Your task to perform on an android device: find snoozed emails in the gmail app Image 0: 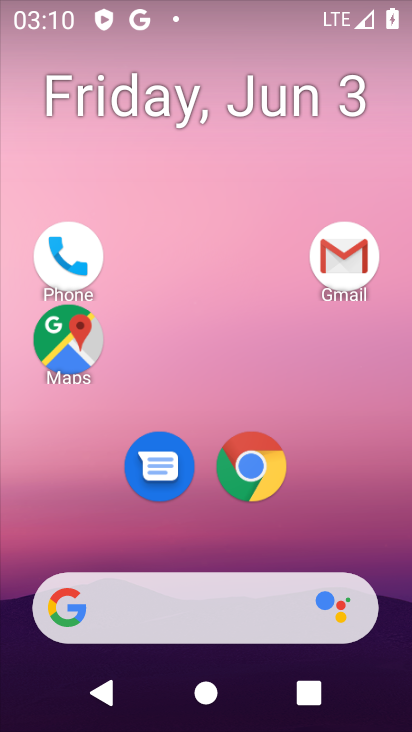
Step 0: press home button
Your task to perform on an android device: find snoozed emails in the gmail app Image 1: 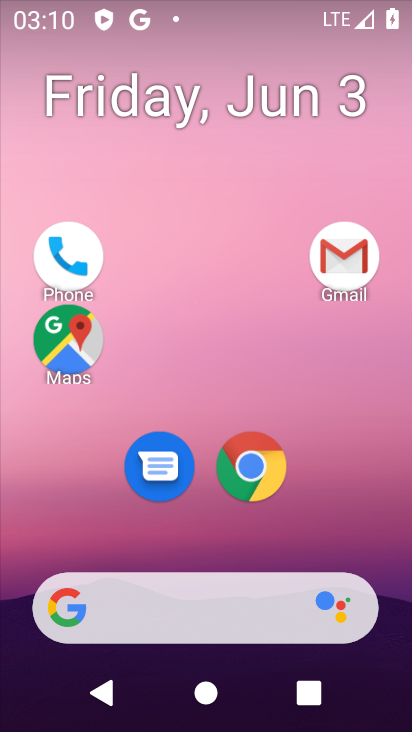
Step 1: drag from (217, 554) to (176, 114)
Your task to perform on an android device: find snoozed emails in the gmail app Image 2: 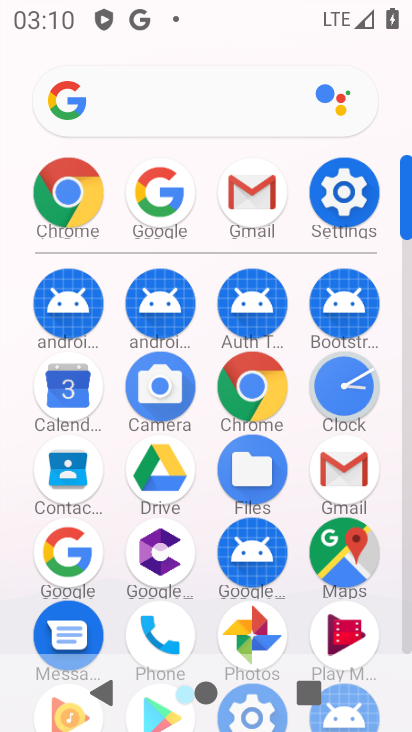
Step 2: click (248, 215)
Your task to perform on an android device: find snoozed emails in the gmail app Image 3: 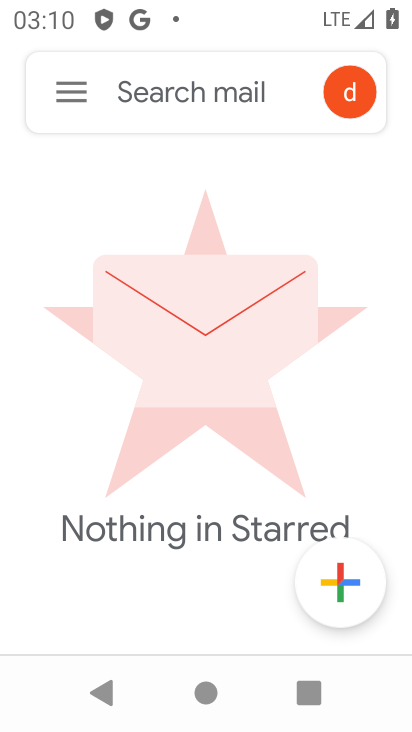
Step 3: click (76, 94)
Your task to perform on an android device: find snoozed emails in the gmail app Image 4: 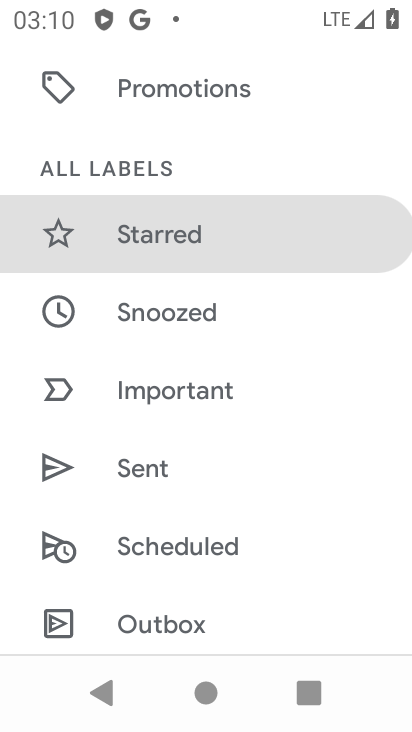
Step 4: click (214, 323)
Your task to perform on an android device: find snoozed emails in the gmail app Image 5: 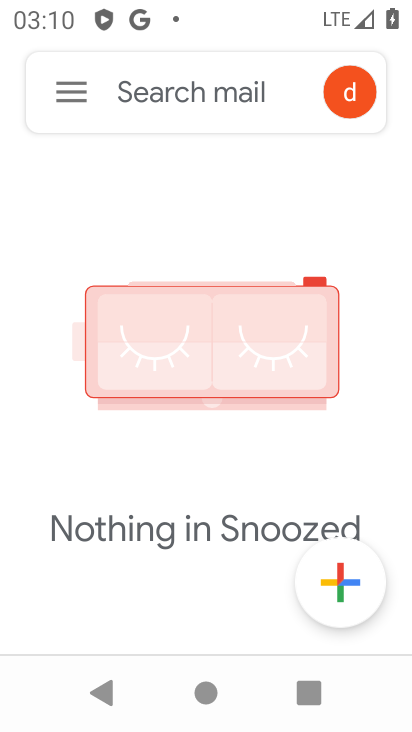
Step 5: task complete